Your task to perform on an android device: toggle notifications settings in the gmail app Image 0: 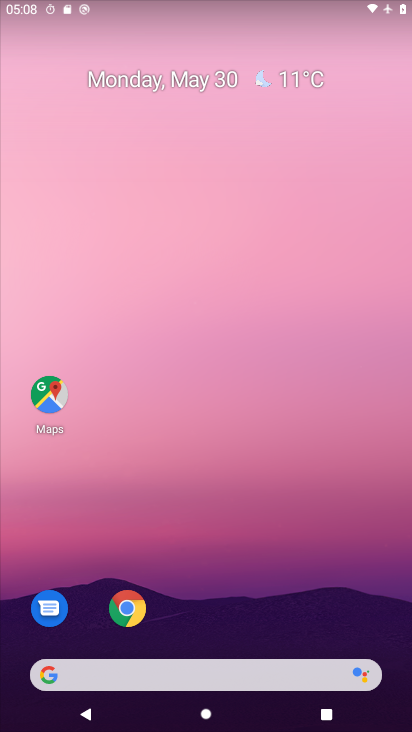
Step 0: drag from (292, 620) to (286, 33)
Your task to perform on an android device: toggle notifications settings in the gmail app Image 1: 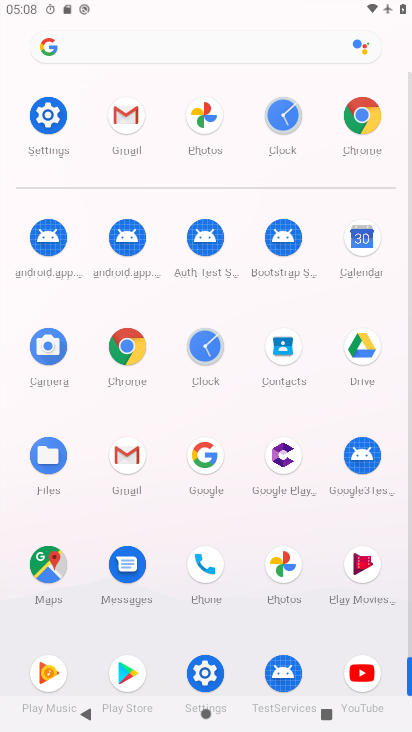
Step 1: click (55, 119)
Your task to perform on an android device: toggle notifications settings in the gmail app Image 2: 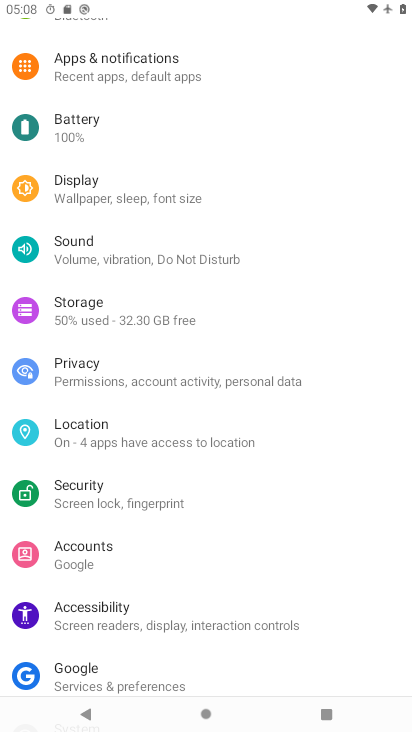
Step 2: press home button
Your task to perform on an android device: toggle notifications settings in the gmail app Image 3: 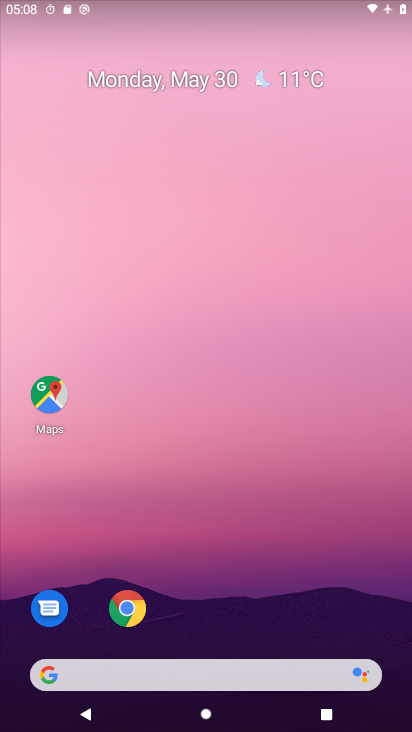
Step 3: drag from (267, 586) to (198, 10)
Your task to perform on an android device: toggle notifications settings in the gmail app Image 4: 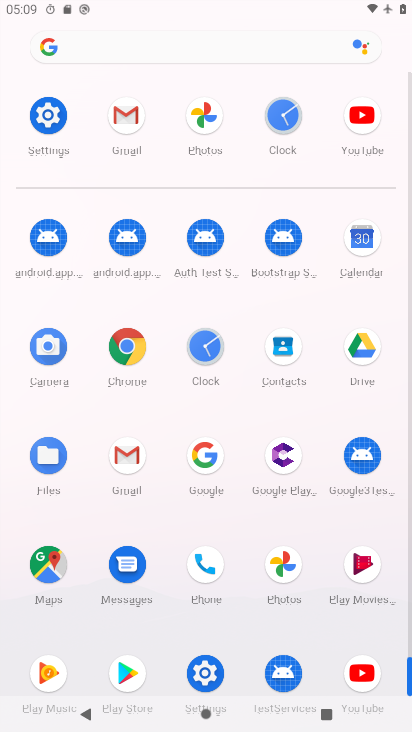
Step 4: click (122, 452)
Your task to perform on an android device: toggle notifications settings in the gmail app Image 5: 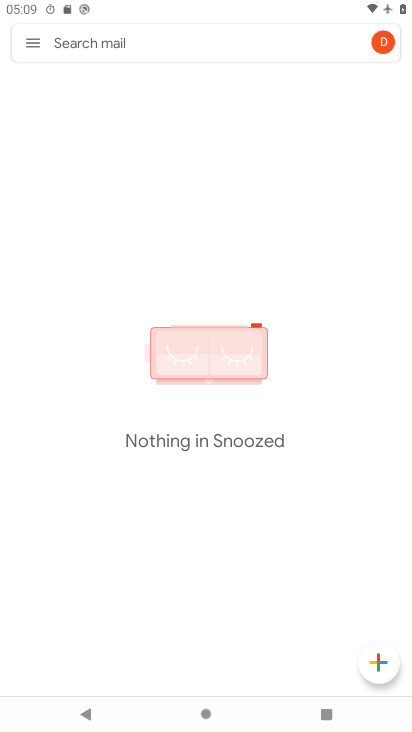
Step 5: click (34, 34)
Your task to perform on an android device: toggle notifications settings in the gmail app Image 6: 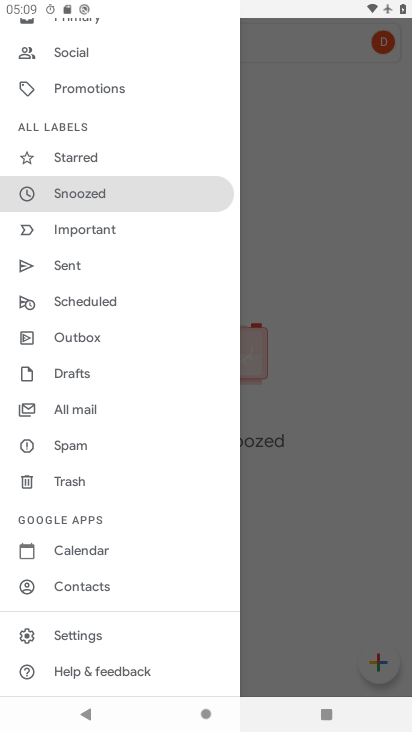
Step 6: click (103, 641)
Your task to perform on an android device: toggle notifications settings in the gmail app Image 7: 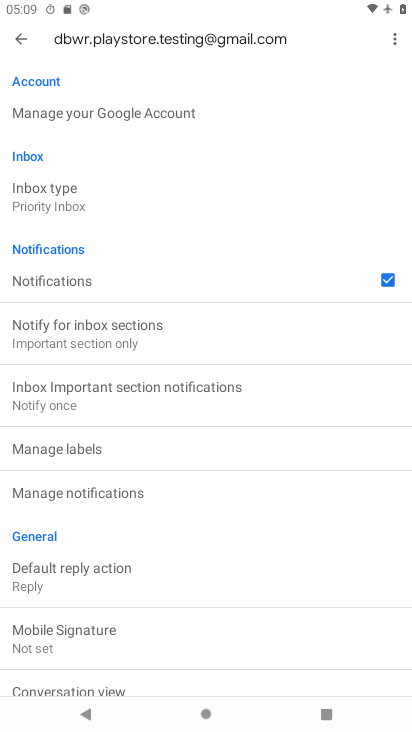
Step 7: click (100, 278)
Your task to perform on an android device: toggle notifications settings in the gmail app Image 8: 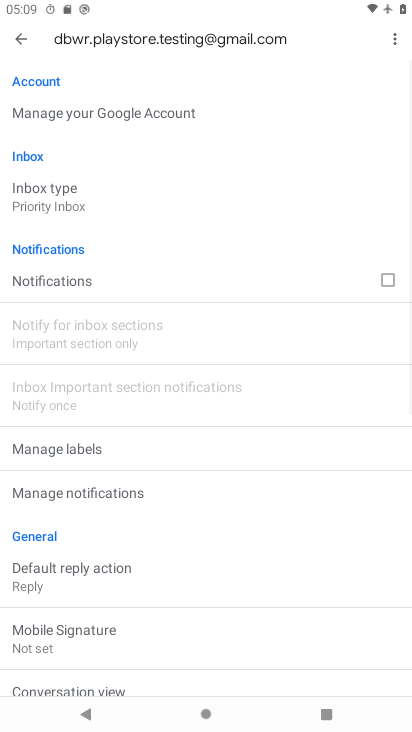
Step 8: task complete